Your task to perform on an android device: Open Yahoo.com Image 0: 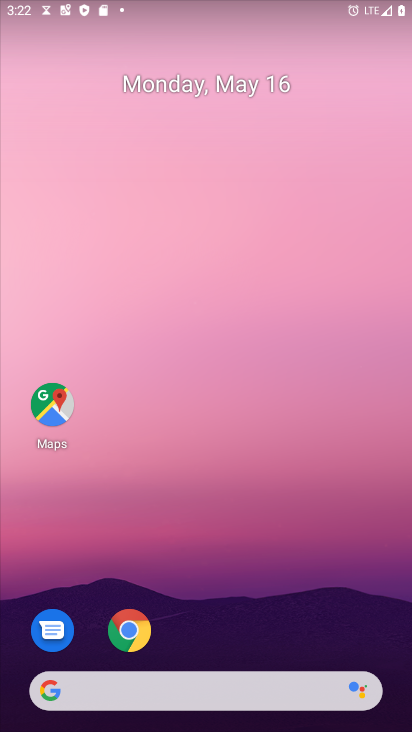
Step 0: press home button
Your task to perform on an android device: Open Yahoo.com Image 1: 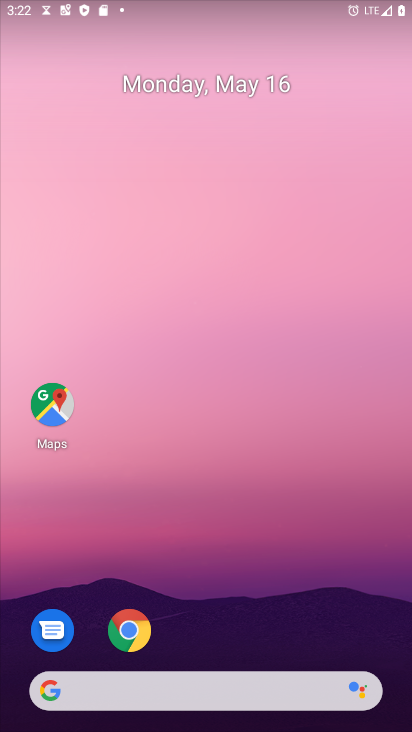
Step 1: click (118, 628)
Your task to perform on an android device: Open Yahoo.com Image 2: 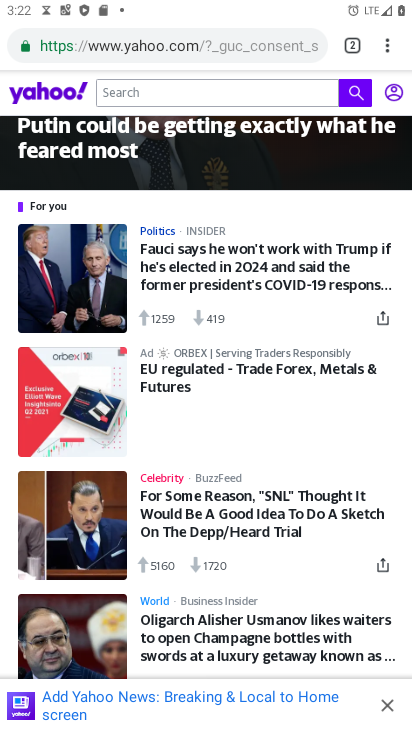
Step 2: task complete